Your task to perform on an android device: Search for Mexican restaurants on Maps Image 0: 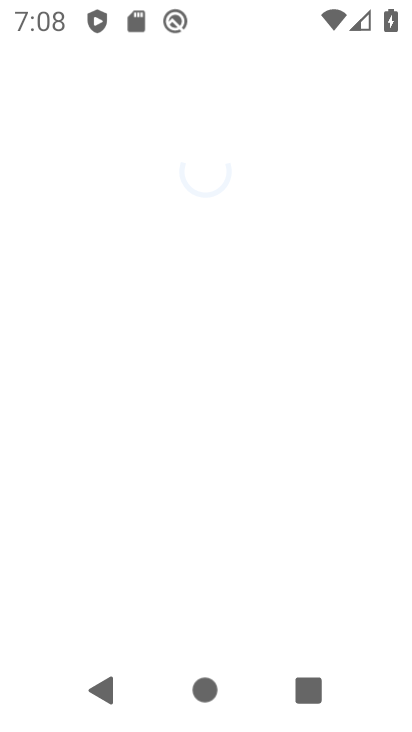
Step 0: drag from (349, 535) to (268, 197)
Your task to perform on an android device: Search for Mexican restaurants on Maps Image 1: 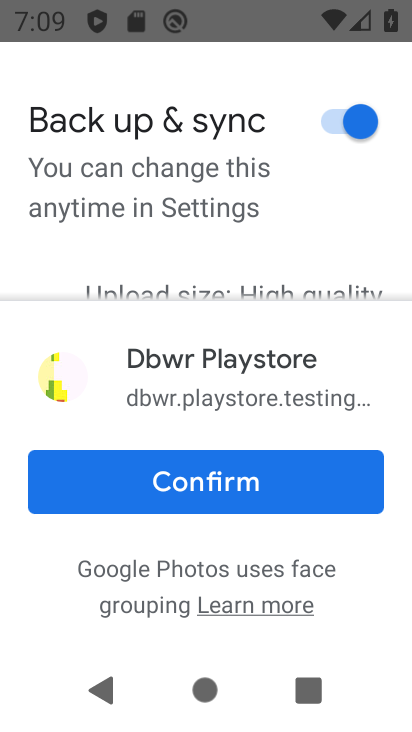
Step 1: click (188, 485)
Your task to perform on an android device: Search for Mexican restaurants on Maps Image 2: 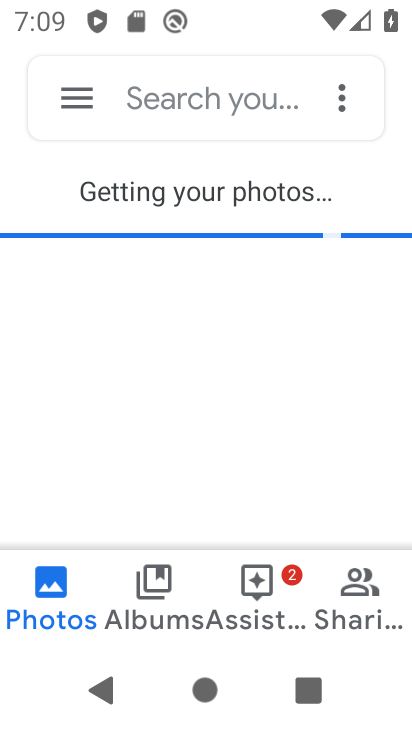
Step 2: press home button
Your task to perform on an android device: Search for Mexican restaurants on Maps Image 3: 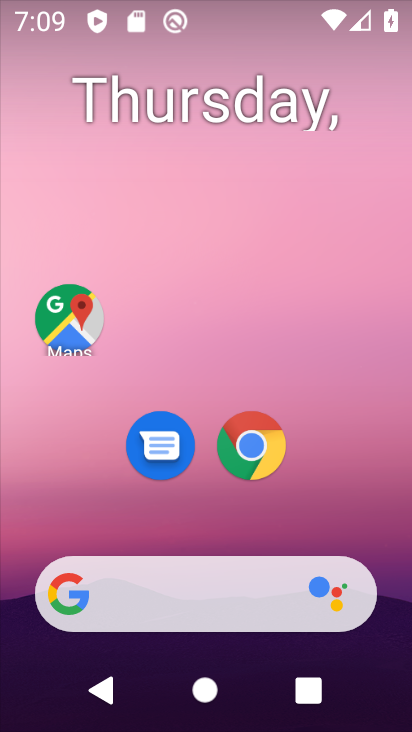
Step 3: drag from (309, 451) to (272, 136)
Your task to perform on an android device: Search for Mexican restaurants on Maps Image 4: 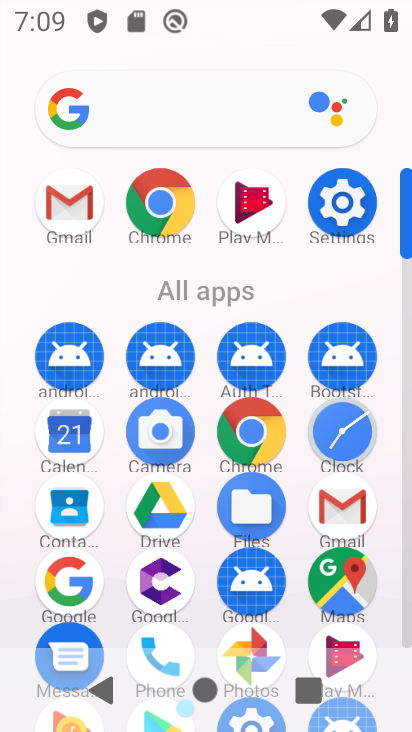
Step 4: click (344, 223)
Your task to perform on an android device: Search for Mexican restaurants on Maps Image 5: 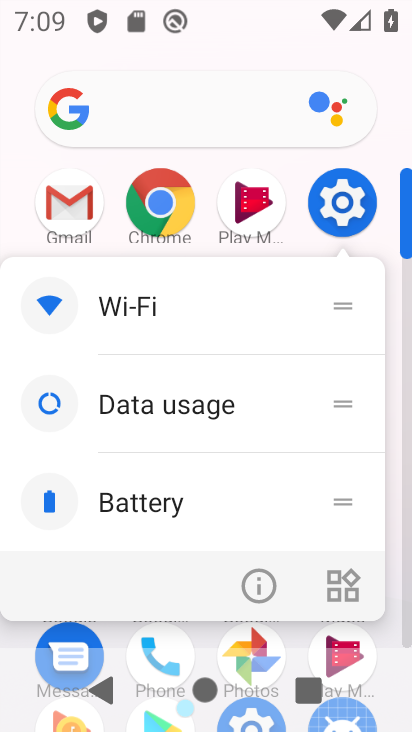
Step 5: click (339, 195)
Your task to perform on an android device: Search for Mexican restaurants on Maps Image 6: 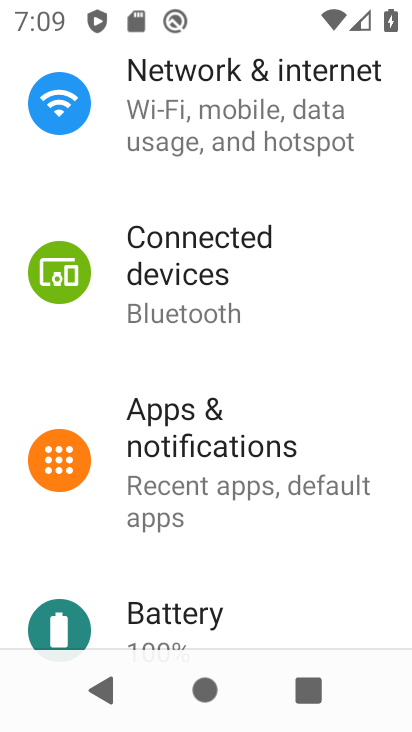
Step 6: click (191, 135)
Your task to perform on an android device: Search for Mexican restaurants on Maps Image 7: 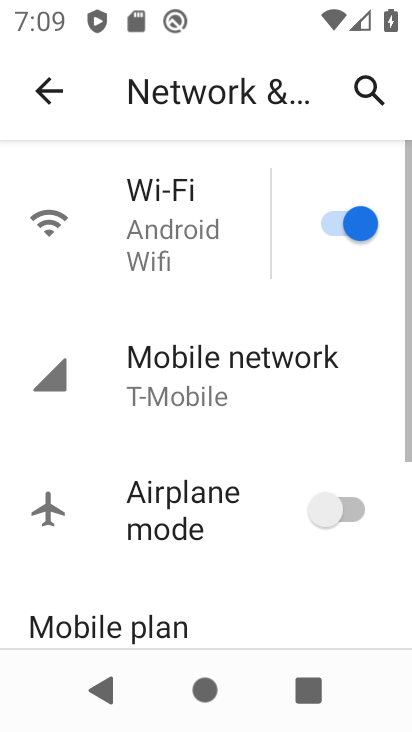
Step 7: click (202, 219)
Your task to perform on an android device: Search for Mexican restaurants on Maps Image 8: 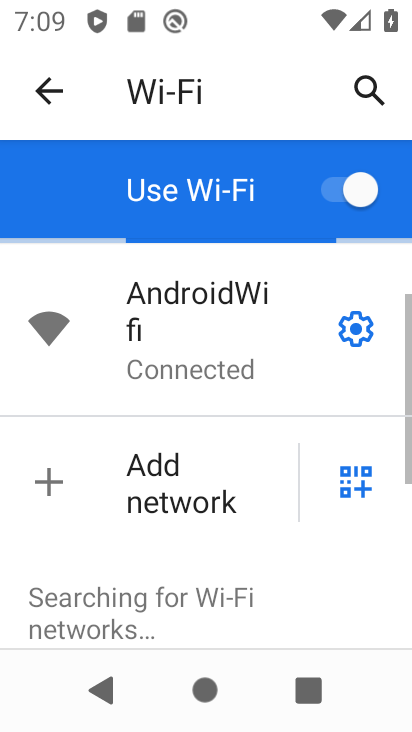
Step 8: click (333, 191)
Your task to perform on an android device: Search for Mexican restaurants on Maps Image 9: 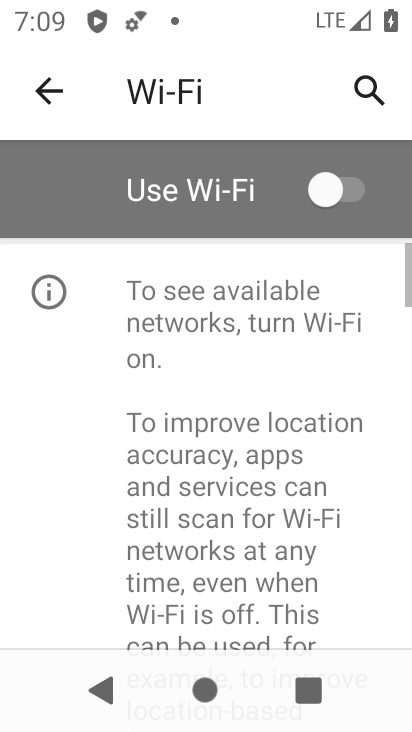
Step 9: task complete